Your task to perform on an android device: Open ESPN.com Image 0: 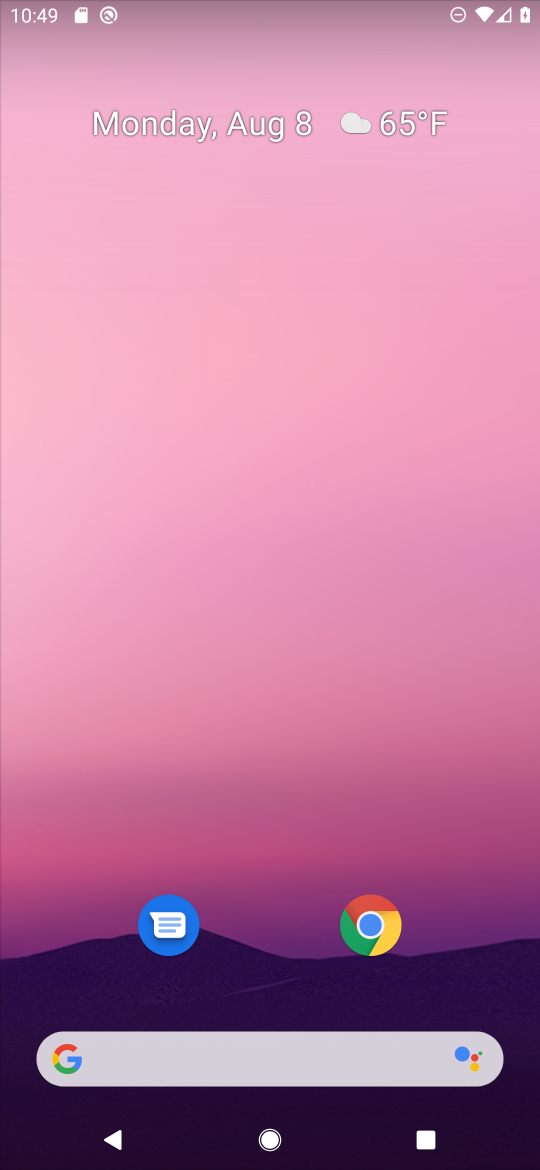
Step 0: drag from (245, 976) to (230, 269)
Your task to perform on an android device: Open ESPN.com Image 1: 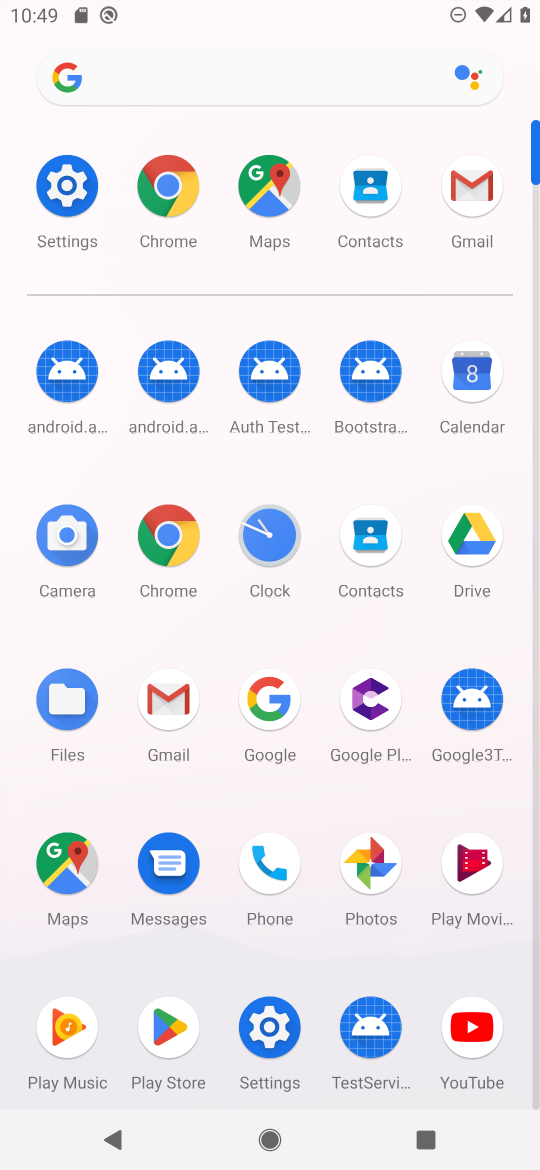
Step 1: click (170, 531)
Your task to perform on an android device: Open ESPN.com Image 2: 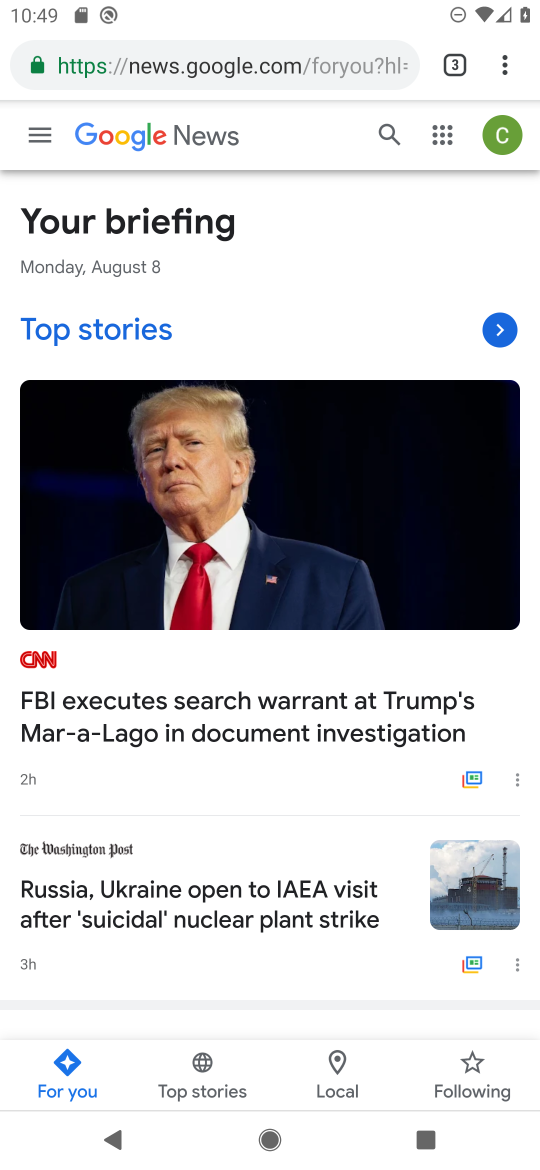
Step 2: click (198, 86)
Your task to perform on an android device: Open ESPN.com Image 3: 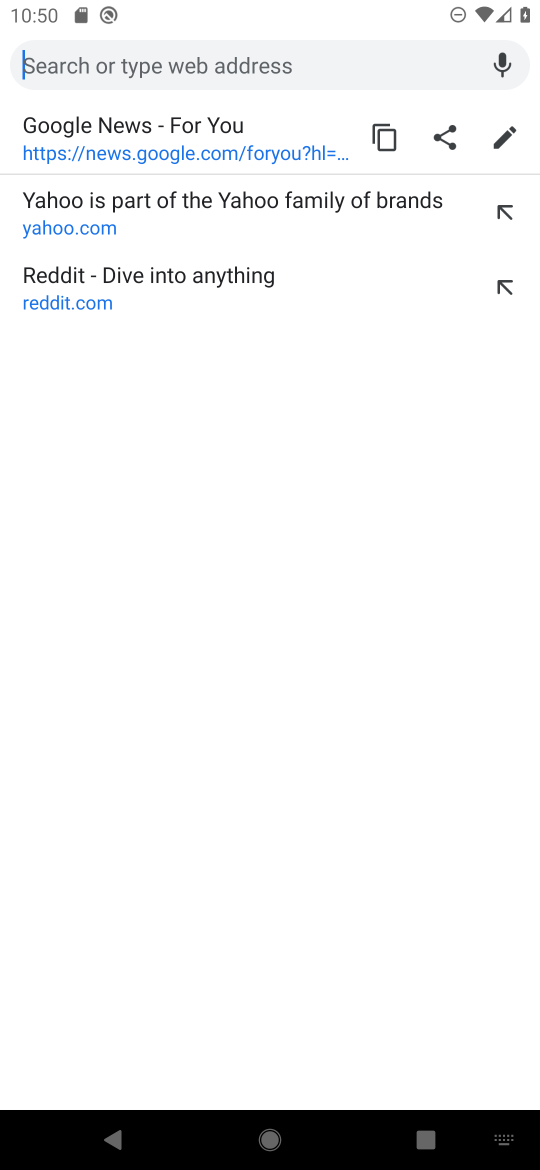
Step 3: type "espn.com"
Your task to perform on an android device: Open ESPN.com Image 4: 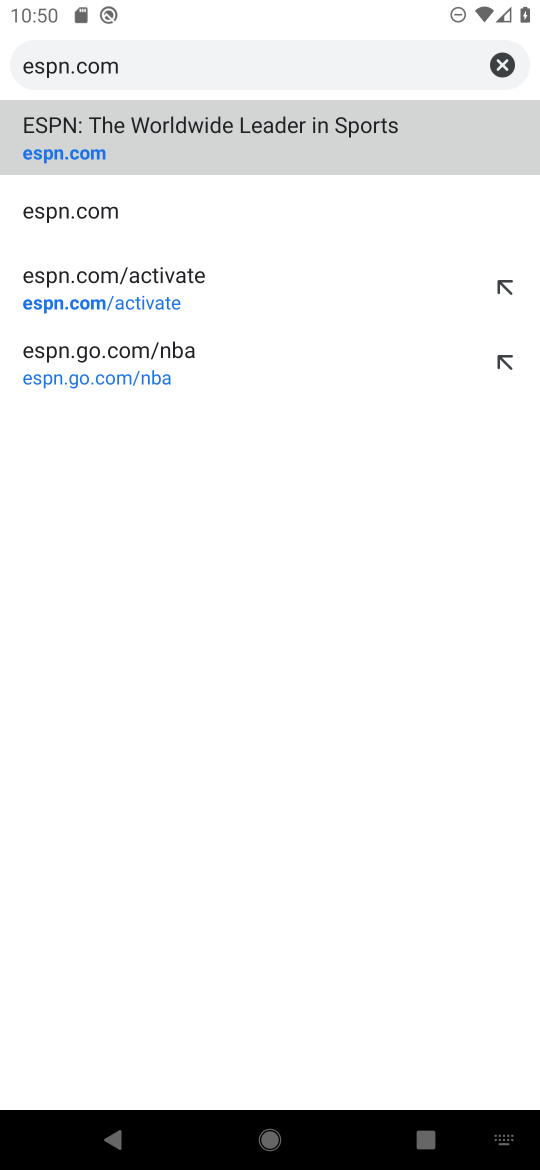
Step 4: click (196, 128)
Your task to perform on an android device: Open ESPN.com Image 5: 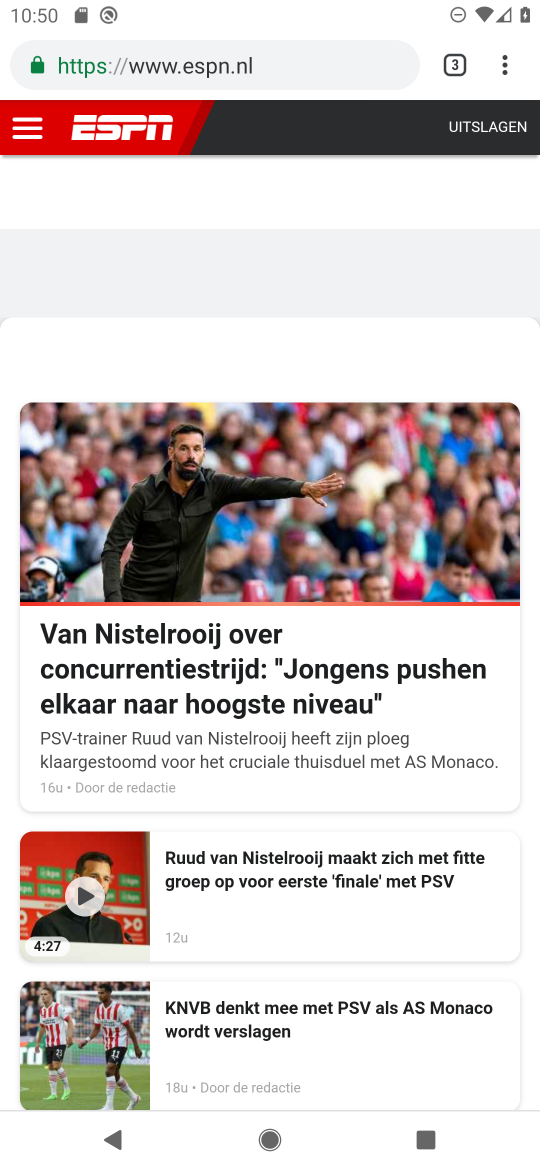
Step 5: task complete